Your task to perform on an android device: turn off translation in the chrome app Image 0: 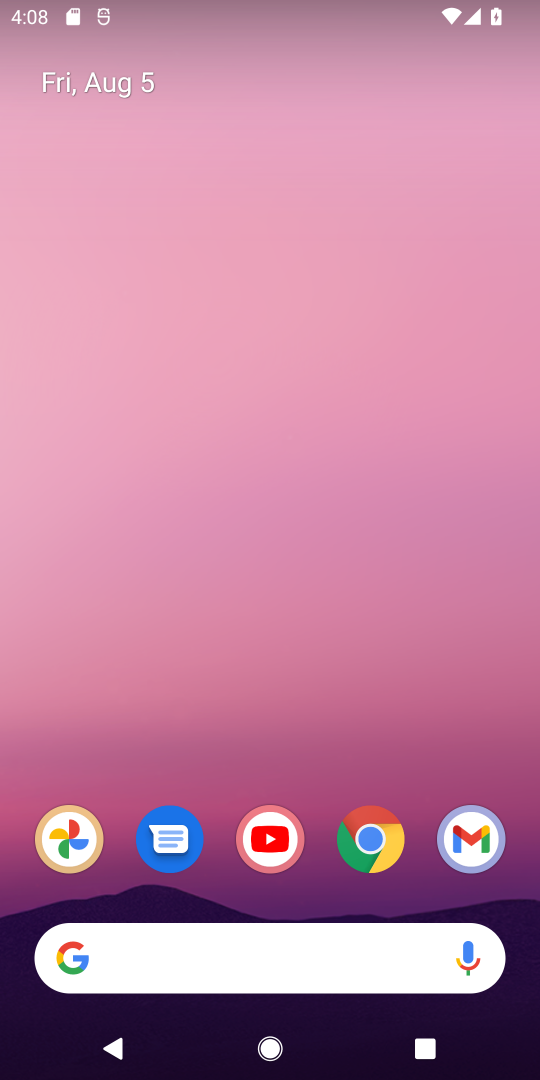
Step 0: click (360, 848)
Your task to perform on an android device: turn off translation in the chrome app Image 1: 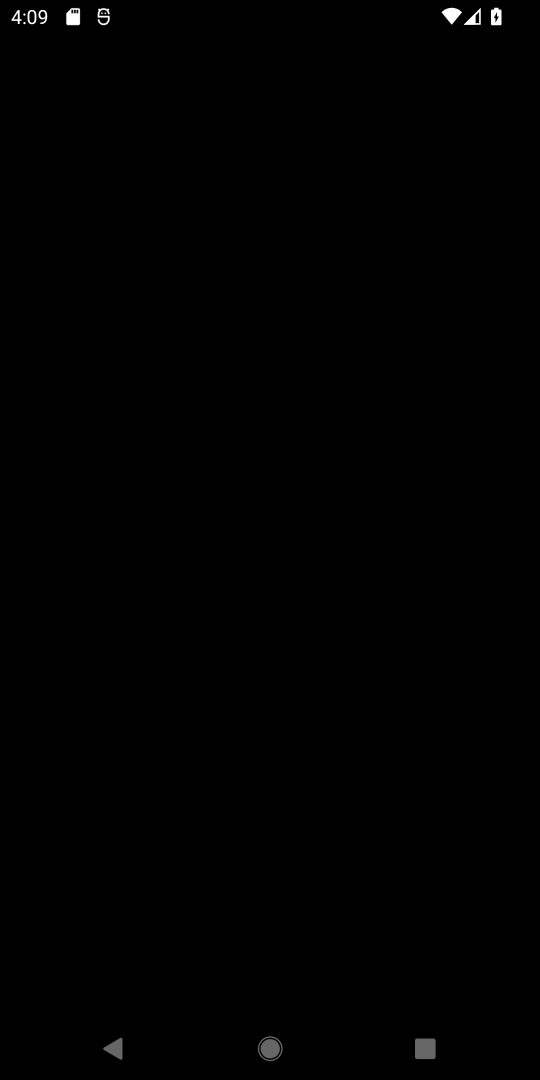
Step 1: task complete